Your task to perform on an android device: Open wifi settings Image 0: 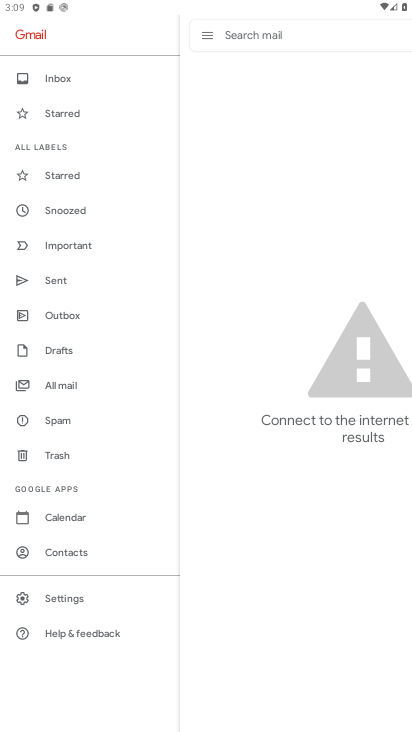
Step 0: press home button
Your task to perform on an android device: Open wifi settings Image 1: 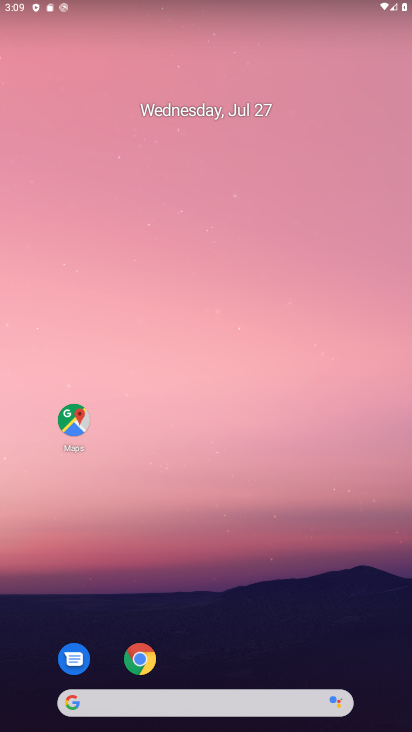
Step 1: drag from (215, 675) to (224, 1)
Your task to perform on an android device: Open wifi settings Image 2: 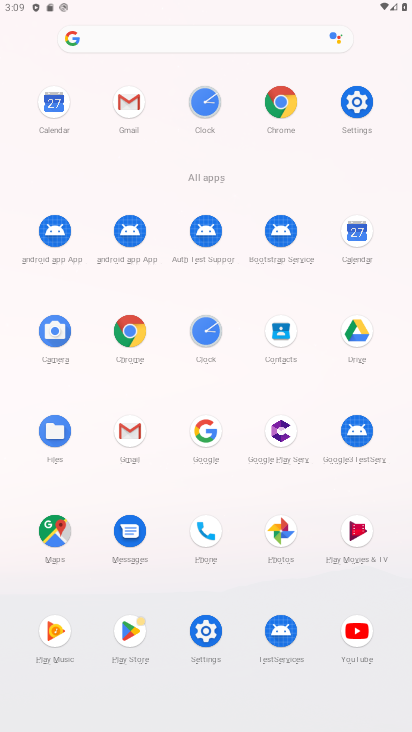
Step 2: click (341, 115)
Your task to perform on an android device: Open wifi settings Image 3: 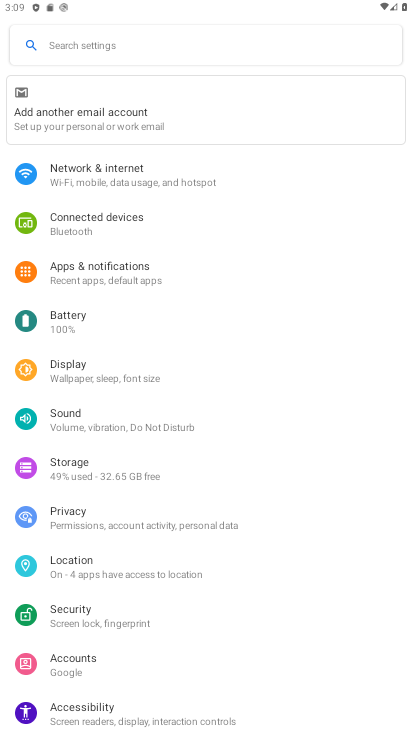
Step 3: click (67, 172)
Your task to perform on an android device: Open wifi settings Image 4: 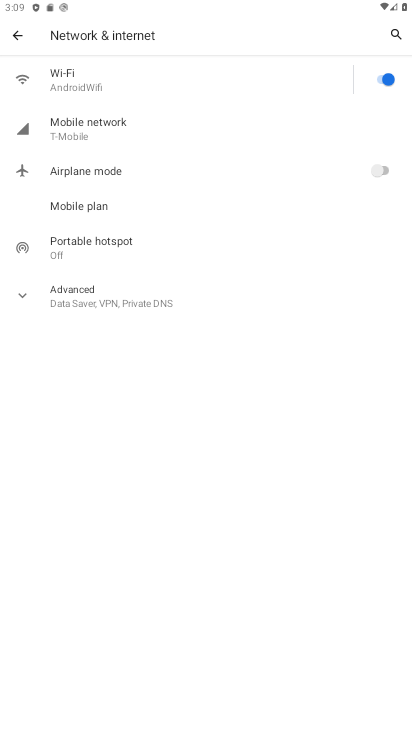
Step 4: click (25, 80)
Your task to perform on an android device: Open wifi settings Image 5: 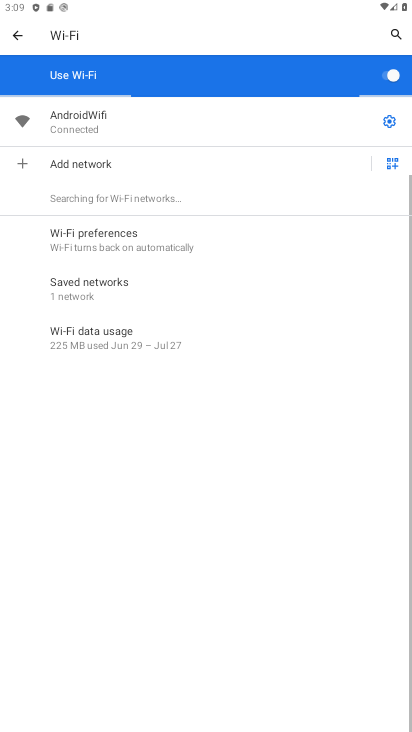
Step 5: task complete